Your task to perform on an android device: Open Yahoo.com Image 0: 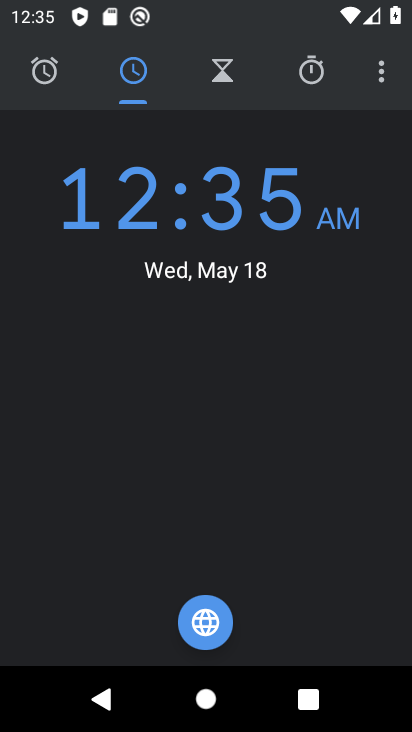
Step 0: press home button
Your task to perform on an android device: Open Yahoo.com Image 1: 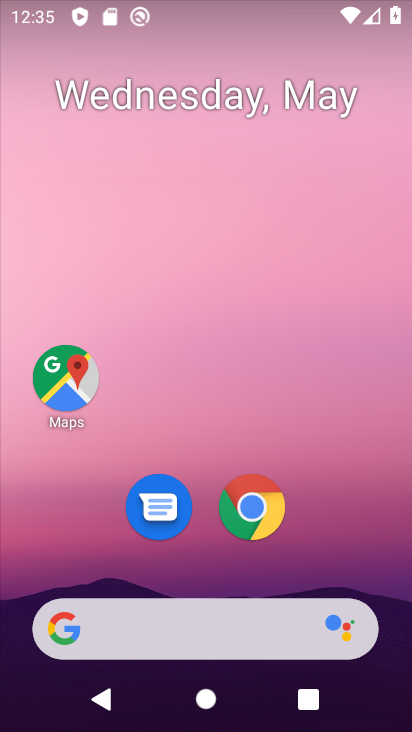
Step 1: click (253, 504)
Your task to perform on an android device: Open Yahoo.com Image 2: 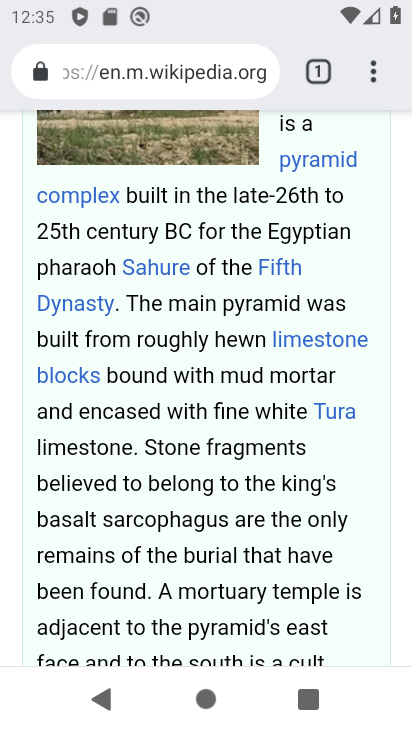
Step 2: click (169, 63)
Your task to perform on an android device: Open Yahoo.com Image 3: 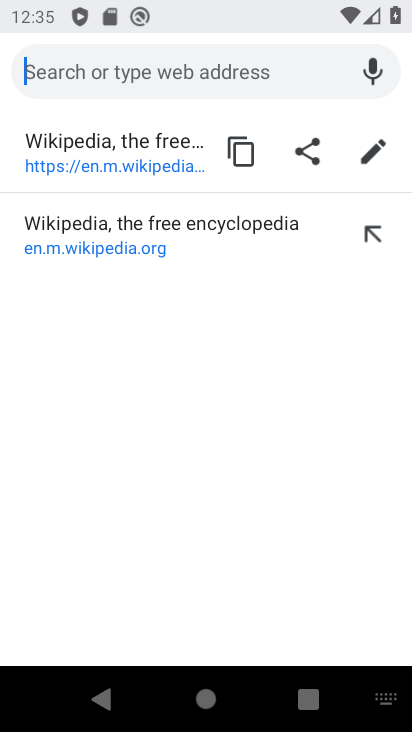
Step 3: type "yahoo"
Your task to perform on an android device: Open Yahoo.com Image 4: 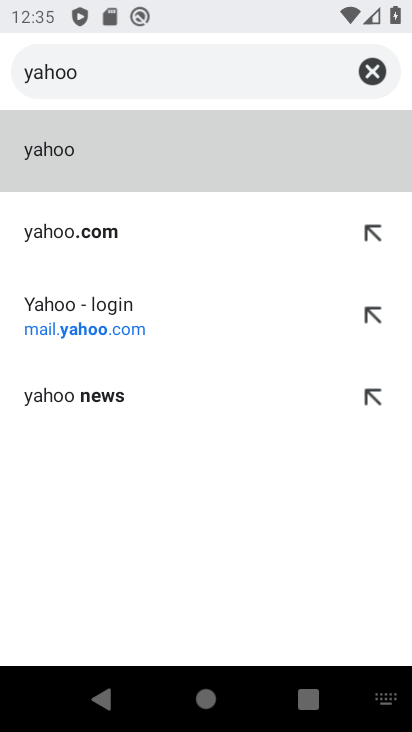
Step 4: click (52, 158)
Your task to perform on an android device: Open Yahoo.com Image 5: 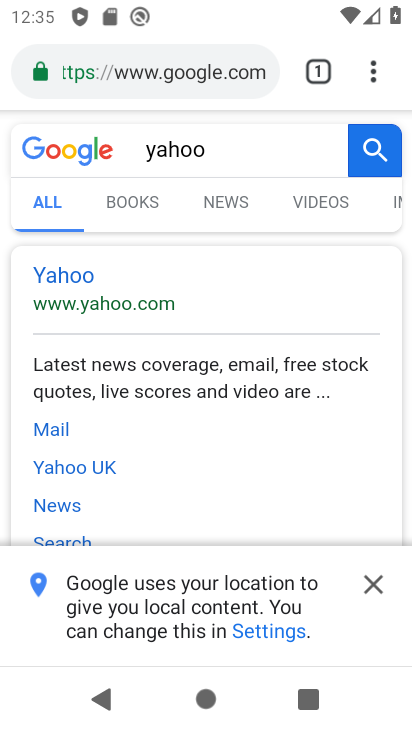
Step 5: click (73, 279)
Your task to perform on an android device: Open Yahoo.com Image 6: 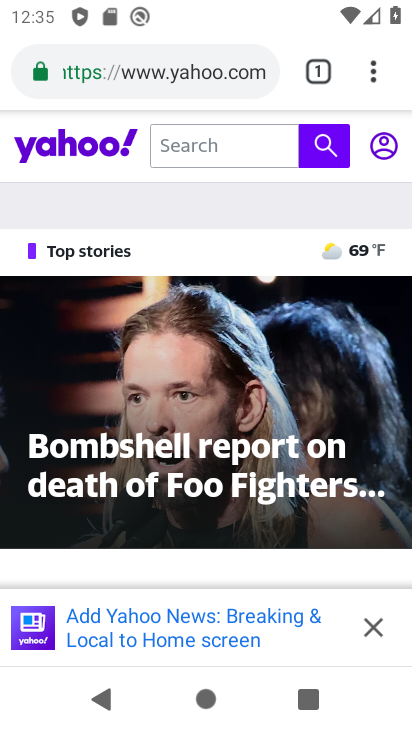
Step 6: task complete